Your task to perform on an android device: all mails in gmail Image 0: 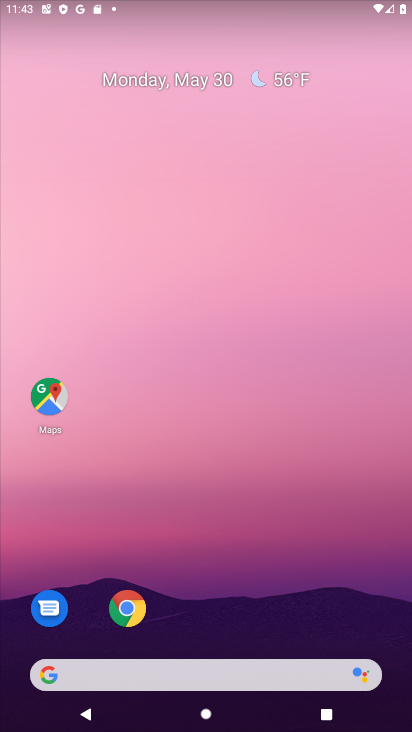
Step 0: drag from (194, 569) to (269, 83)
Your task to perform on an android device: all mails in gmail Image 1: 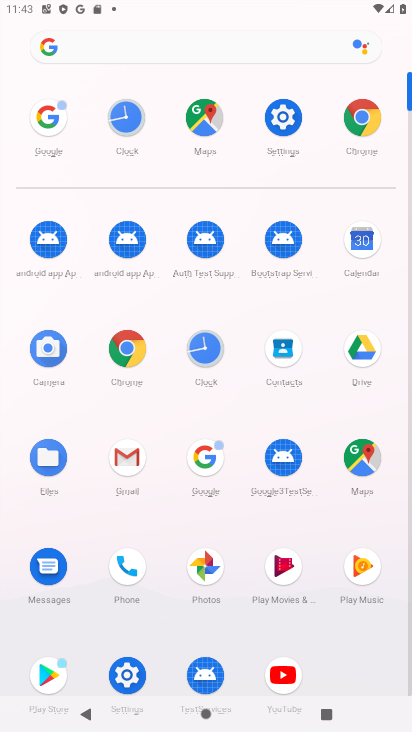
Step 1: click (119, 467)
Your task to perform on an android device: all mails in gmail Image 2: 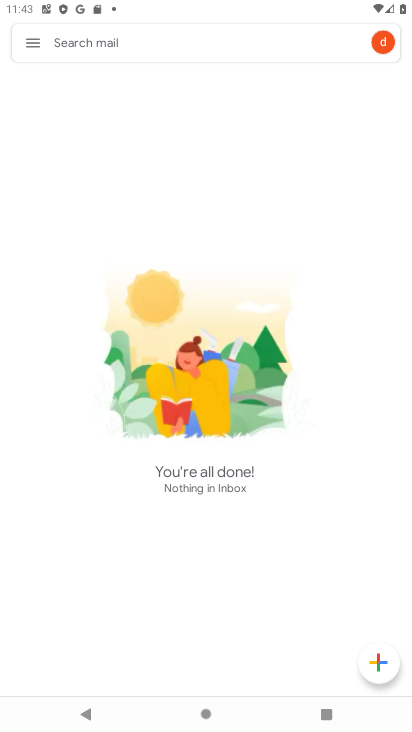
Step 2: click (31, 42)
Your task to perform on an android device: all mails in gmail Image 3: 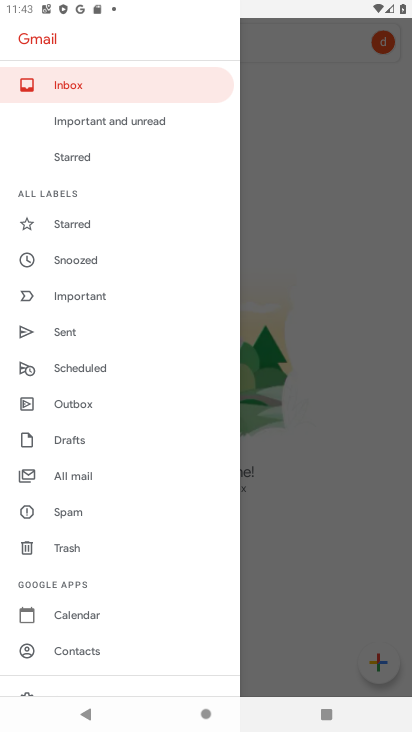
Step 3: click (86, 473)
Your task to perform on an android device: all mails in gmail Image 4: 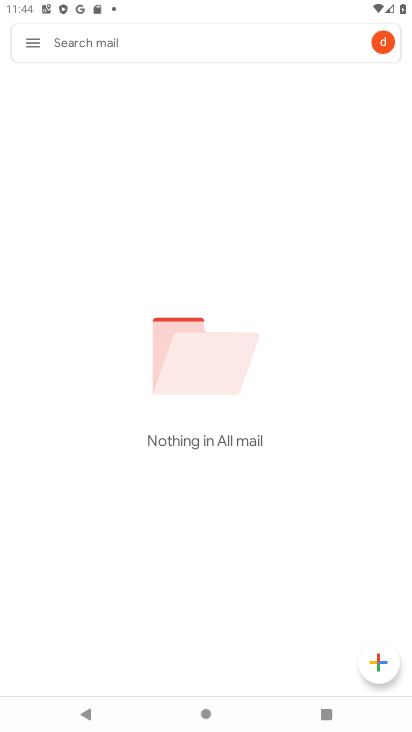
Step 4: task complete